Your task to perform on an android device: delete the emails in spam in the gmail app Image 0: 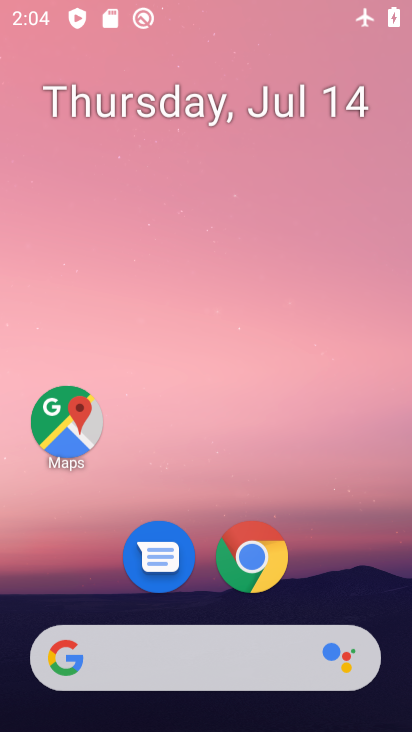
Step 0: press home button
Your task to perform on an android device: delete the emails in spam in the gmail app Image 1: 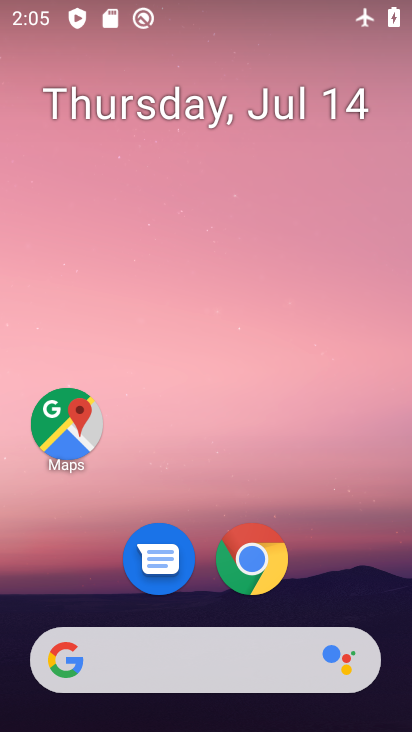
Step 1: drag from (248, 665) to (303, 115)
Your task to perform on an android device: delete the emails in spam in the gmail app Image 2: 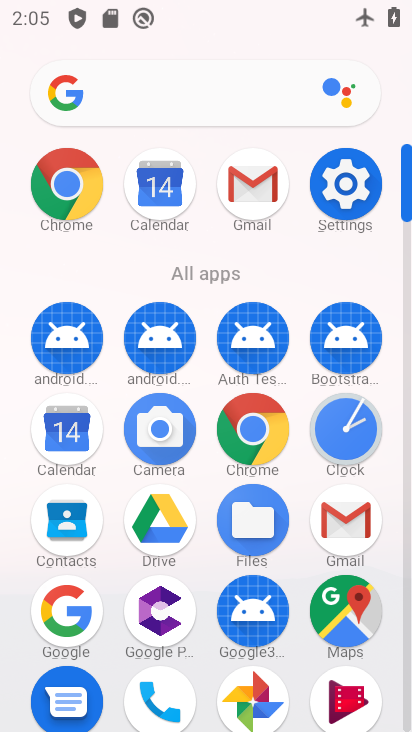
Step 2: click (346, 535)
Your task to perform on an android device: delete the emails in spam in the gmail app Image 3: 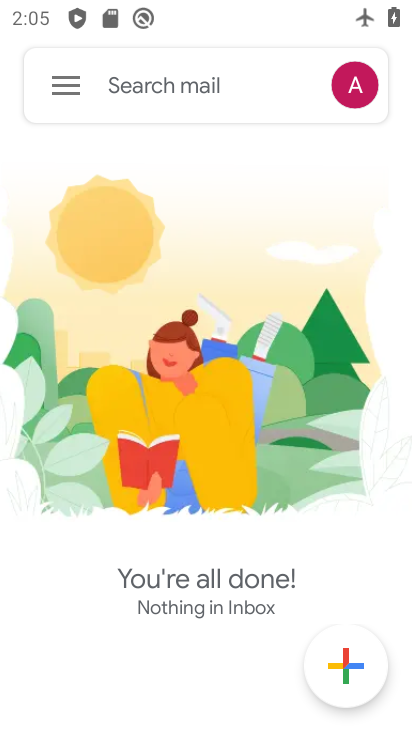
Step 3: click (68, 97)
Your task to perform on an android device: delete the emails in spam in the gmail app Image 4: 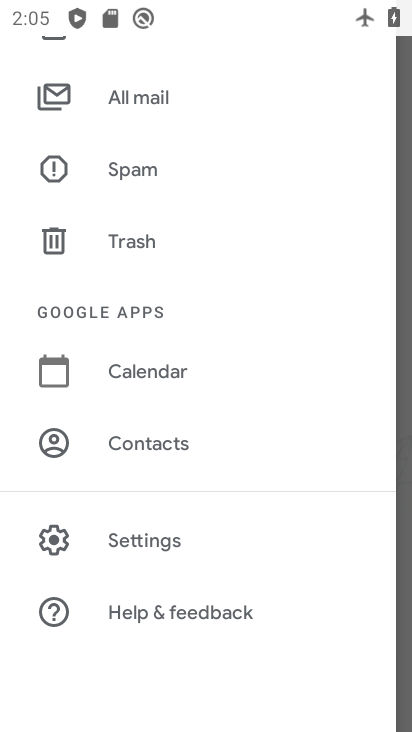
Step 4: drag from (164, 275) to (160, 544)
Your task to perform on an android device: delete the emails in spam in the gmail app Image 5: 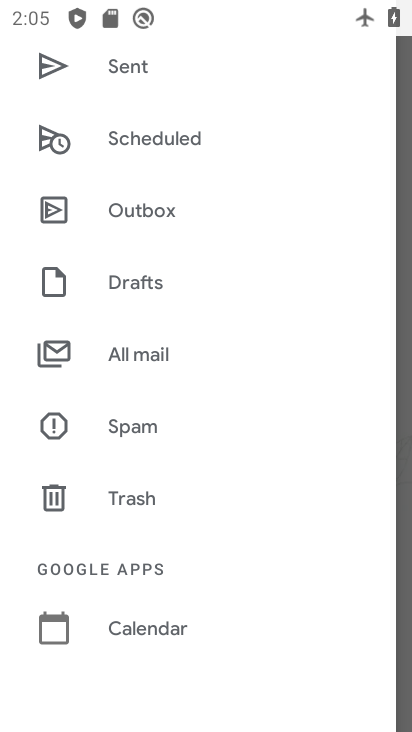
Step 5: click (144, 438)
Your task to perform on an android device: delete the emails in spam in the gmail app Image 6: 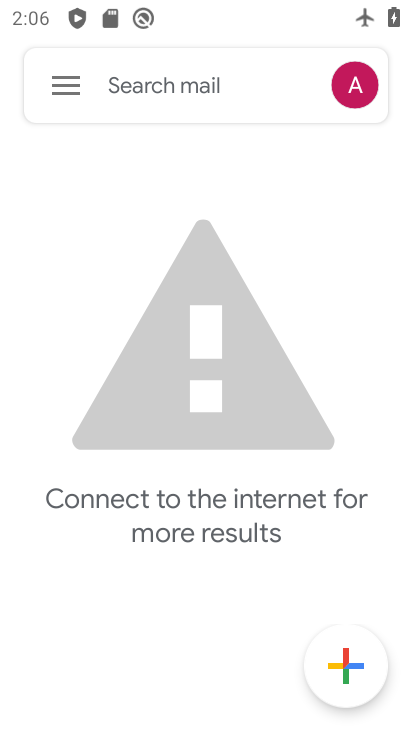
Step 6: task complete